Your task to perform on an android device: Go to location settings Image 0: 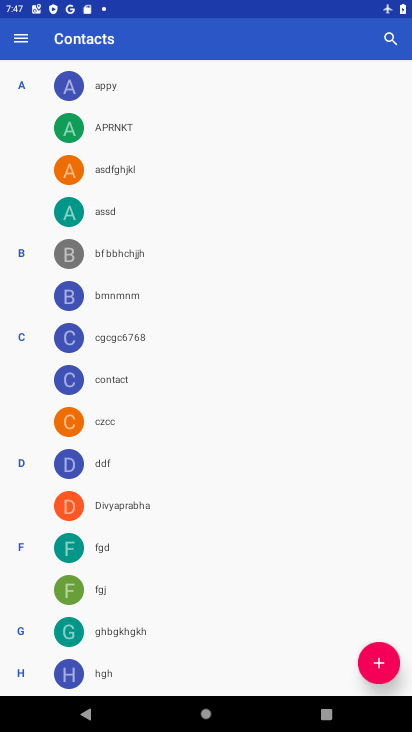
Step 0: press back button
Your task to perform on an android device: Go to location settings Image 1: 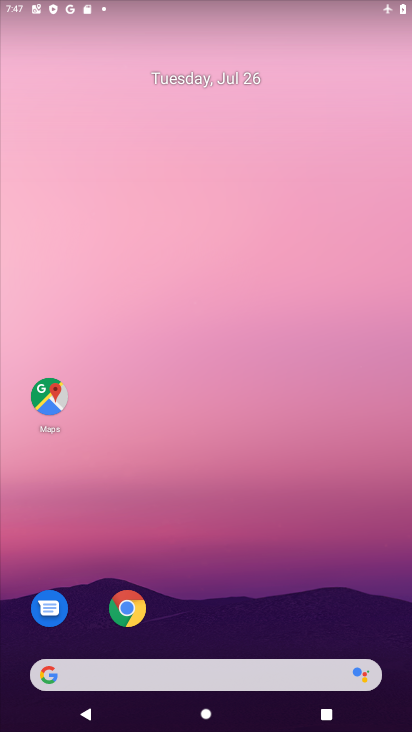
Step 1: drag from (253, 651) to (257, 222)
Your task to perform on an android device: Go to location settings Image 2: 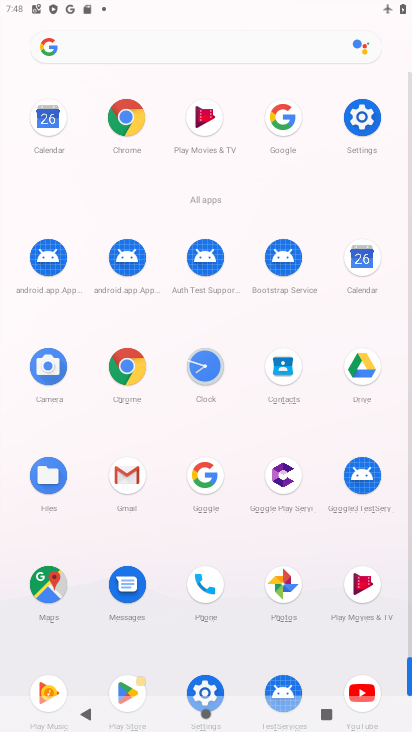
Step 2: click (364, 107)
Your task to perform on an android device: Go to location settings Image 3: 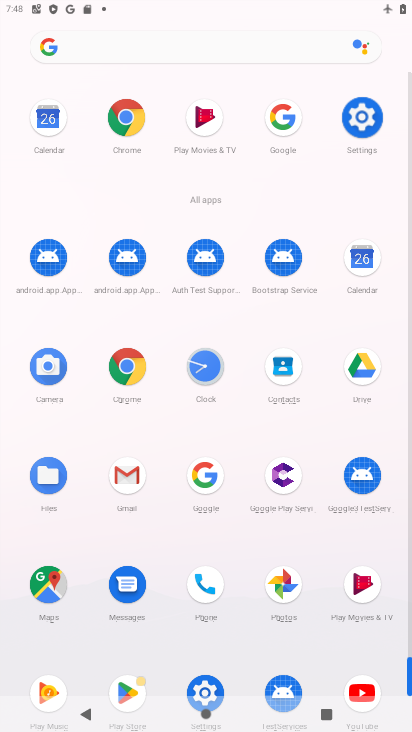
Step 3: click (364, 110)
Your task to perform on an android device: Go to location settings Image 4: 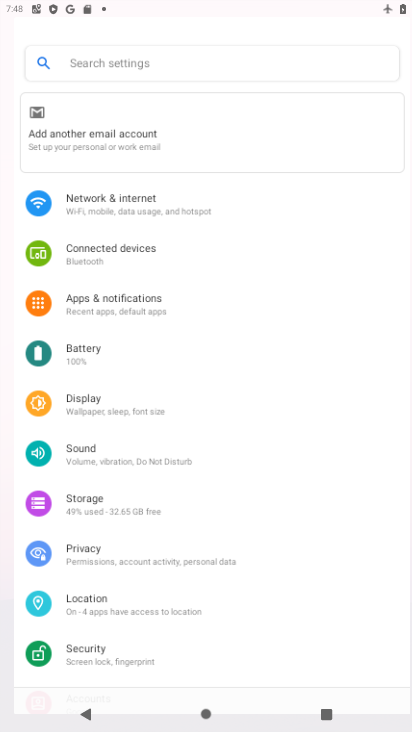
Step 4: click (364, 110)
Your task to perform on an android device: Go to location settings Image 5: 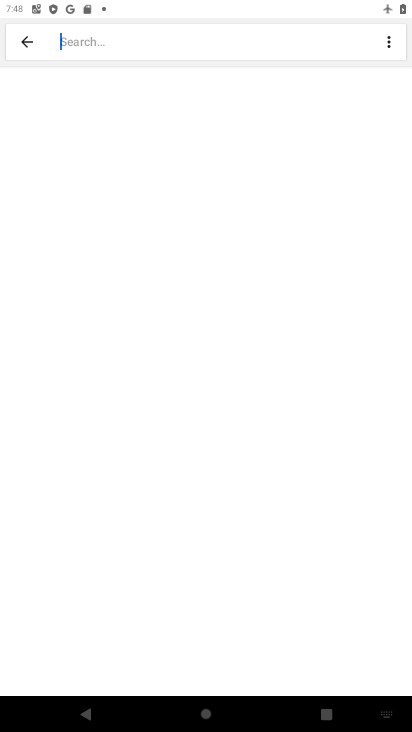
Step 5: click (26, 40)
Your task to perform on an android device: Go to location settings Image 6: 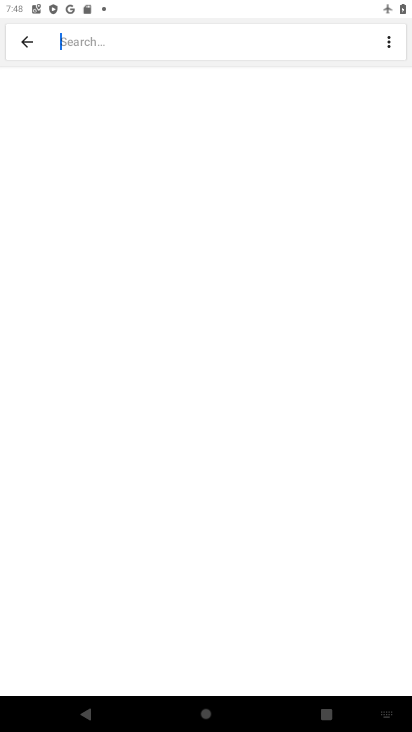
Step 6: click (27, 39)
Your task to perform on an android device: Go to location settings Image 7: 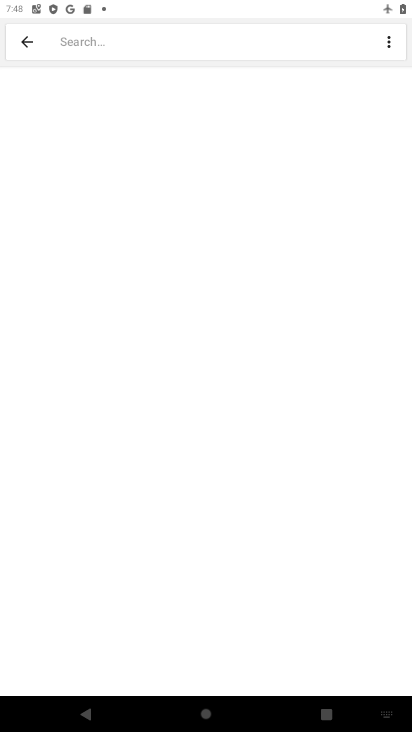
Step 7: click (27, 39)
Your task to perform on an android device: Go to location settings Image 8: 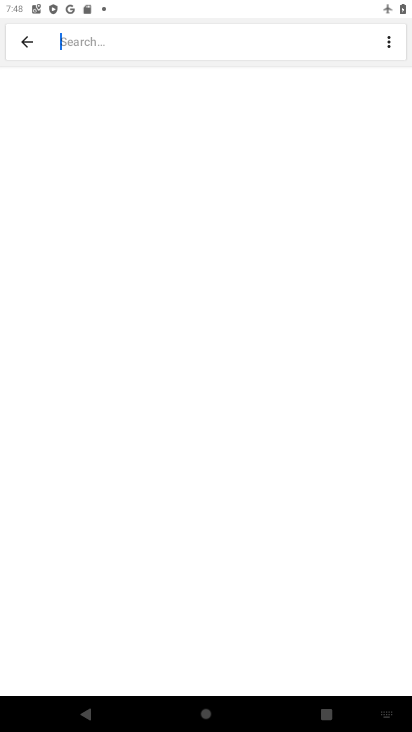
Step 8: click (24, 35)
Your task to perform on an android device: Go to location settings Image 9: 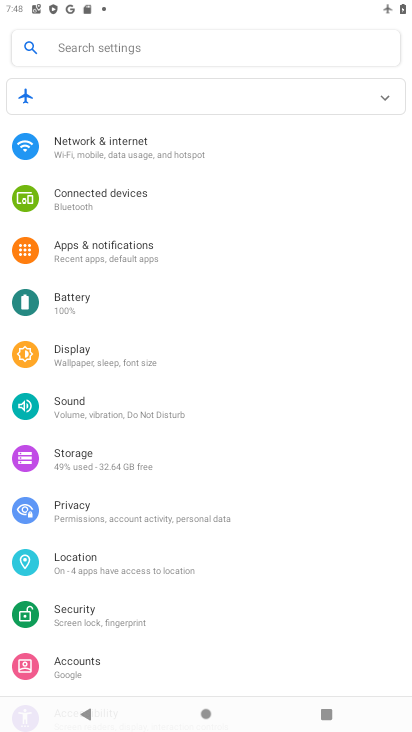
Step 9: click (86, 567)
Your task to perform on an android device: Go to location settings Image 10: 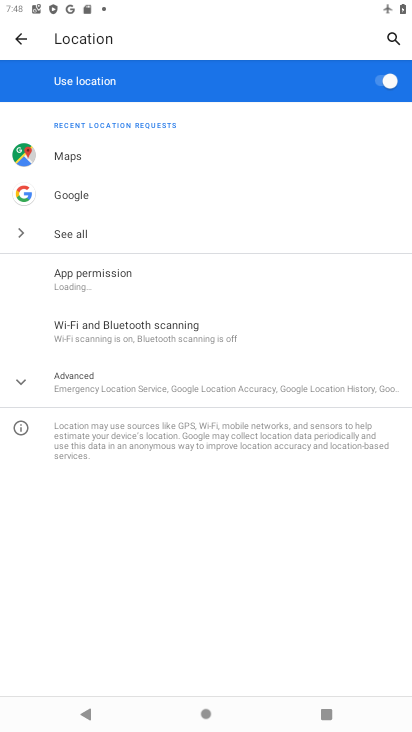
Step 10: click (81, 382)
Your task to perform on an android device: Go to location settings Image 11: 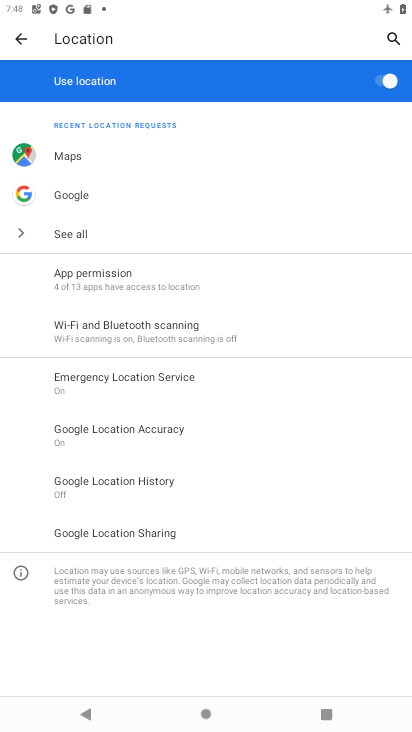
Step 11: task complete